Your task to perform on an android device: Go to Yahoo.com Image 0: 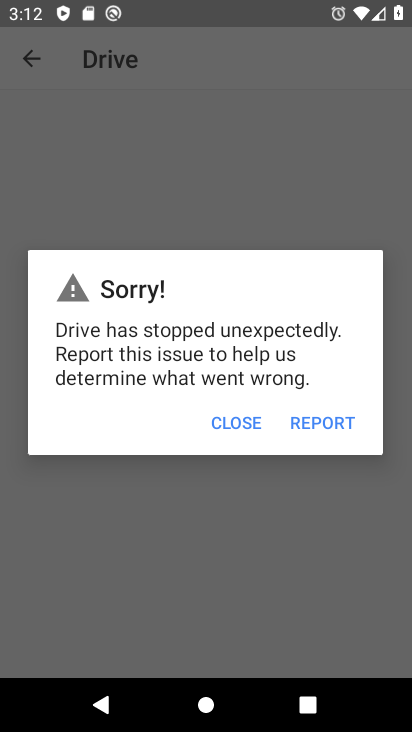
Step 0: press home button
Your task to perform on an android device: Go to Yahoo.com Image 1: 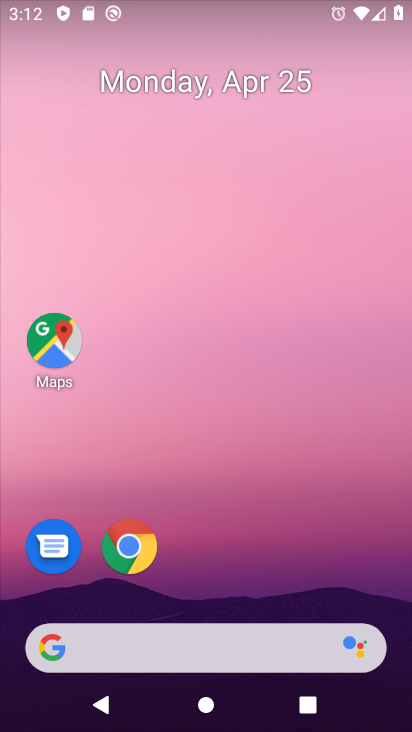
Step 1: click (125, 541)
Your task to perform on an android device: Go to Yahoo.com Image 2: 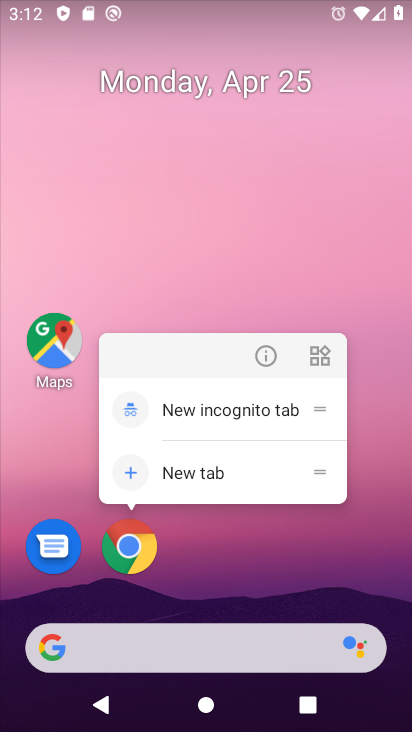
Step 2: click (125, 541)
Your task to perform on an android device: Go to Yahoo.com Image 3: 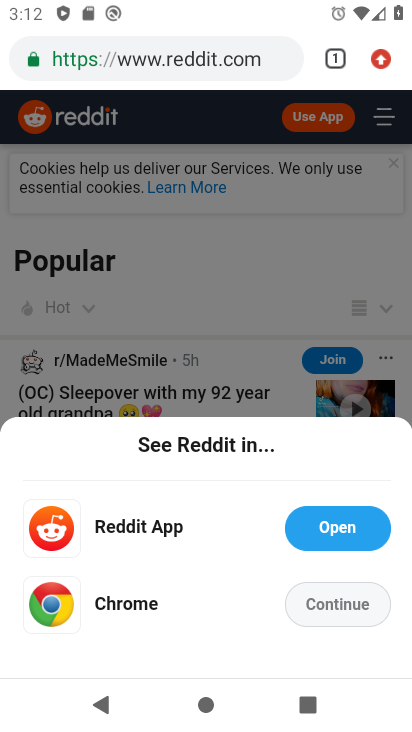
Step 3: click (160, 59)
Your task to perform on an android device: Go to Yahoo.com Image 4: 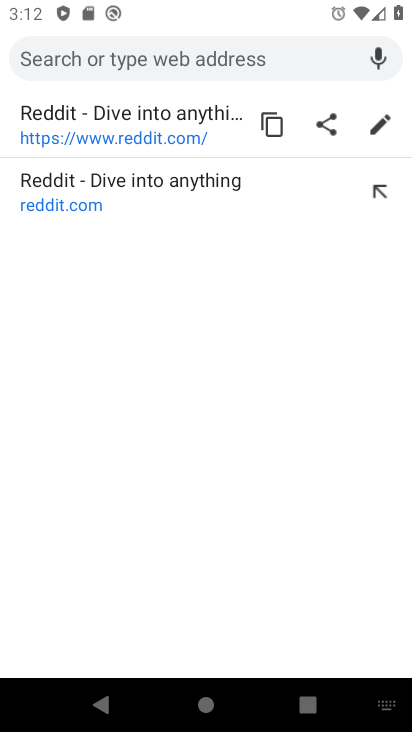
Step 4: type "yahoo.com"
Your task to perform on an android device: Go to Yahoo.com Image 5: 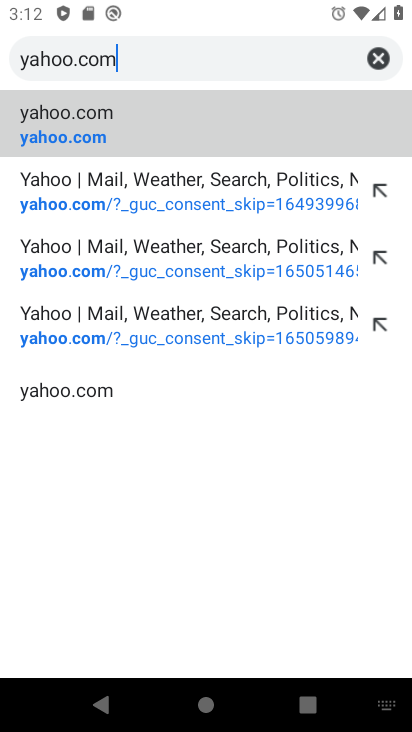
Step 5: click (103, 108)
Your task to perform on an android device: Go to Yahoo.com Image 6: 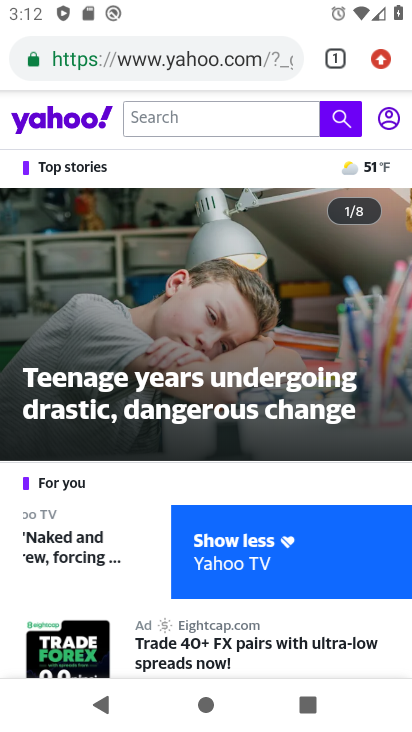
Step 6: task complete